Your task to perform on an android device: What's a good restaurant in Dallas? Image 0: 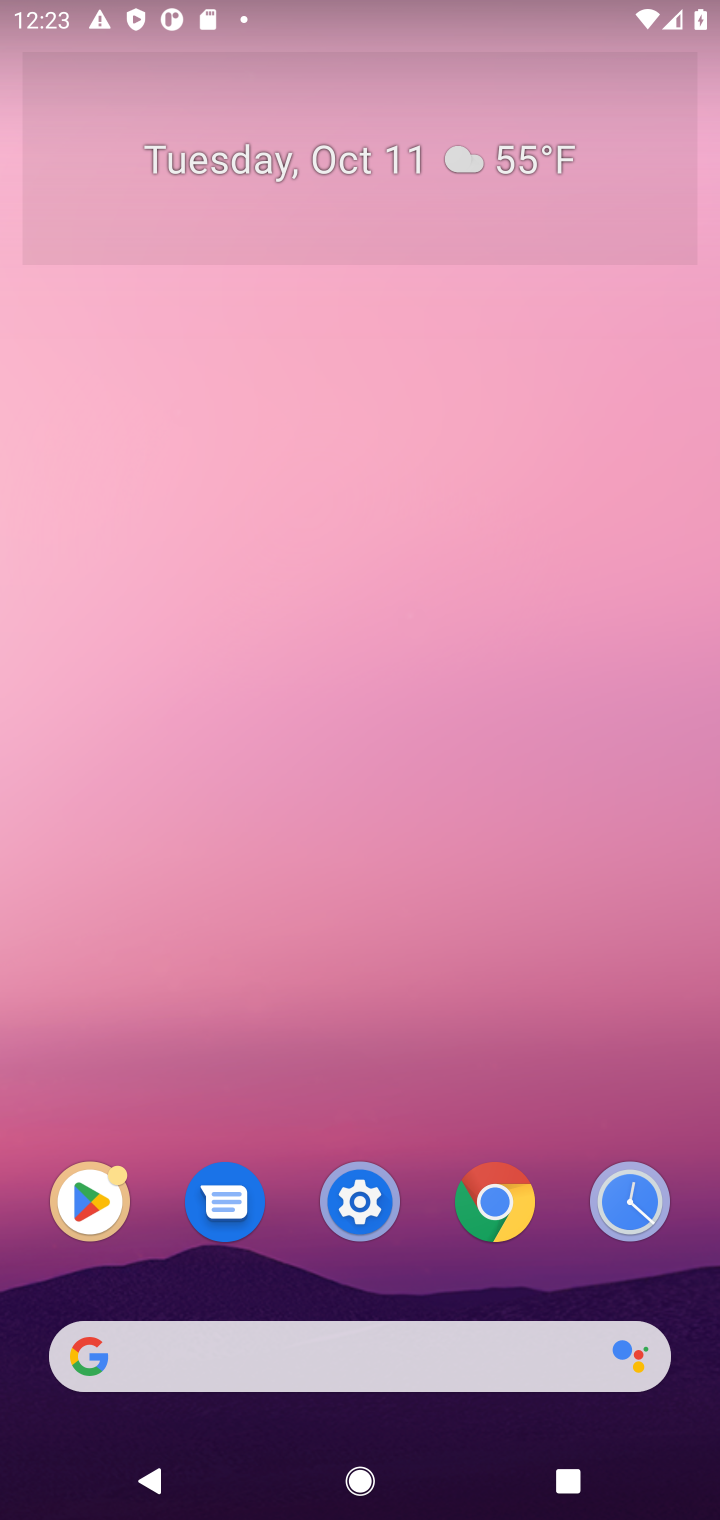
Step 0: task complete